Your task to perform on an android device: What is the recent news? Image 0: 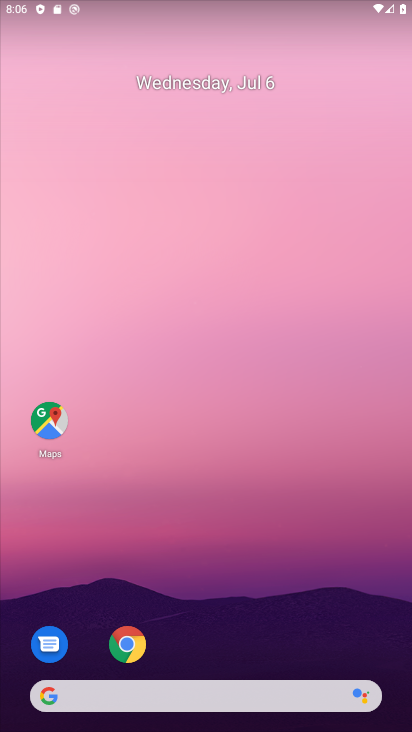
Step 0: drag from (214, 633) to (227, 291)
Your task to perform on an android device: What is the recent news? Image 1: 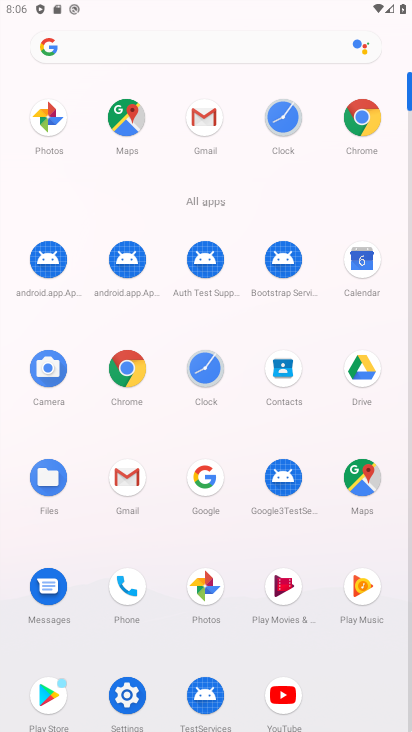
Step 1: click (125, 368)
Your task to perform on an android device: What is the recent news? Image 2: 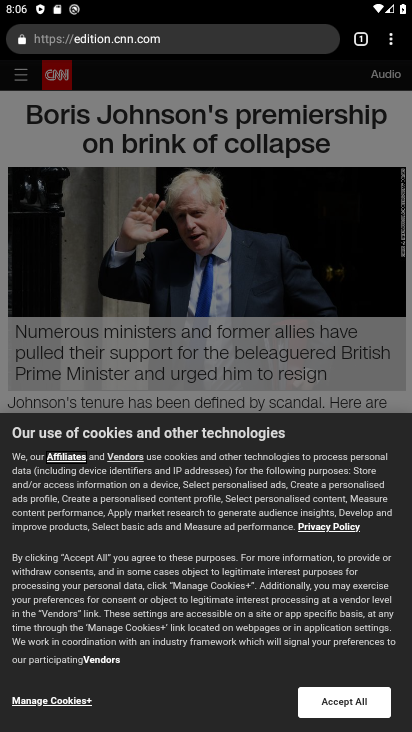
Step 2: click (294, 38)
Your task to perform on an android device: What is the recent news? Image 3: 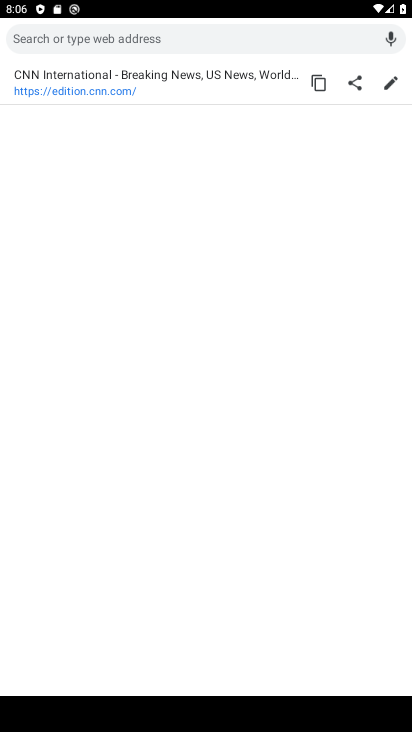
Step 3: type "recent news"
Your task to perform on an android device: What is the recent news? Image 4: 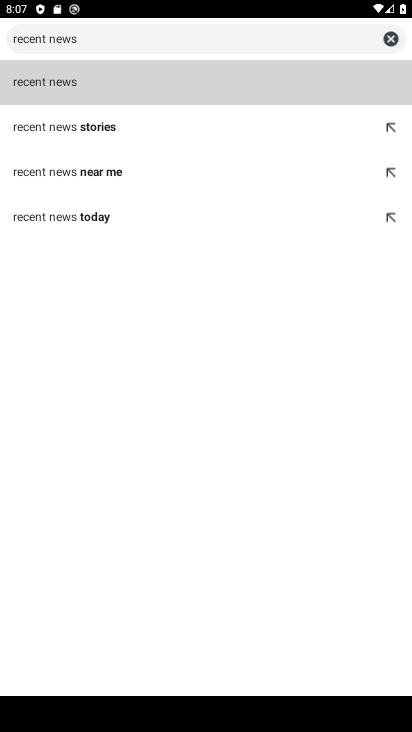
Step 4: click (150, 81)
Your task to perform on an android device: What is the recent news? Image 5: 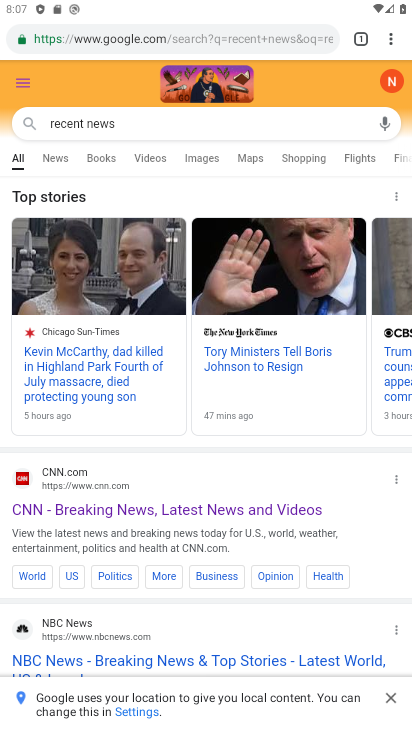
Step 5: click (62, 151)
Your task to perform on an android device: What is the recent news? Image 6: 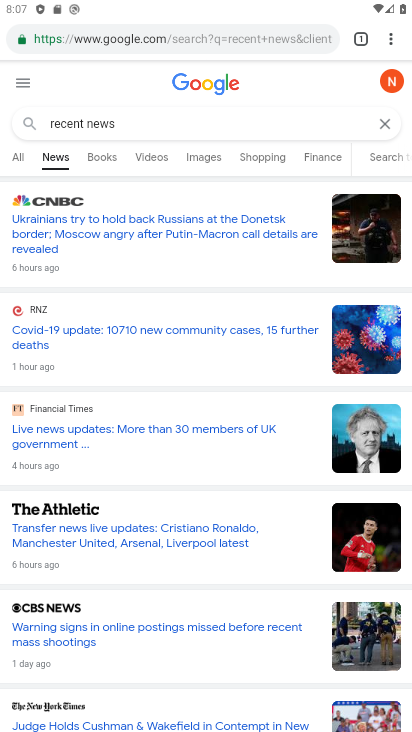
Step 6: task complete